Your task to perform on an android device: Open Chrome and go to settings Image 0: 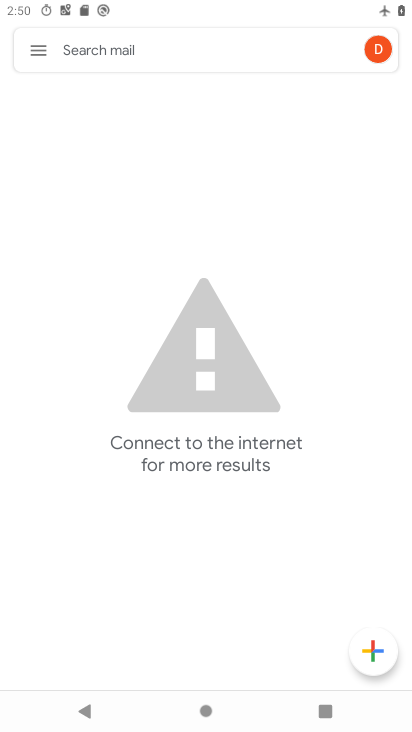
Step 0: press home button
Your task to perform on an android device: Open Chrome and go to settings Image 1: 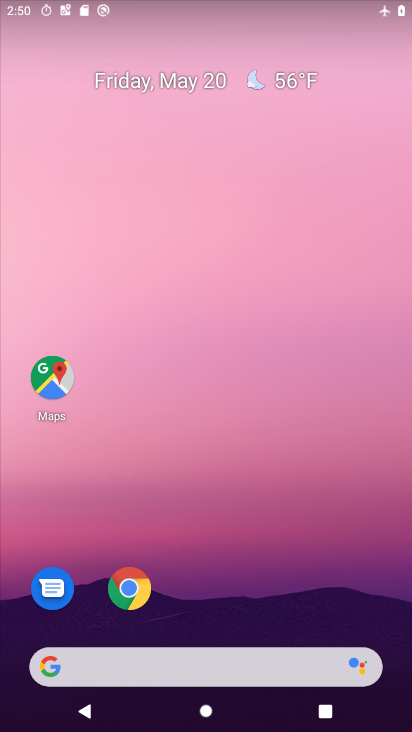
Step 1: click (122, 584)
Your task to perform on an android device: Open Chrome and go to settings Image 2: 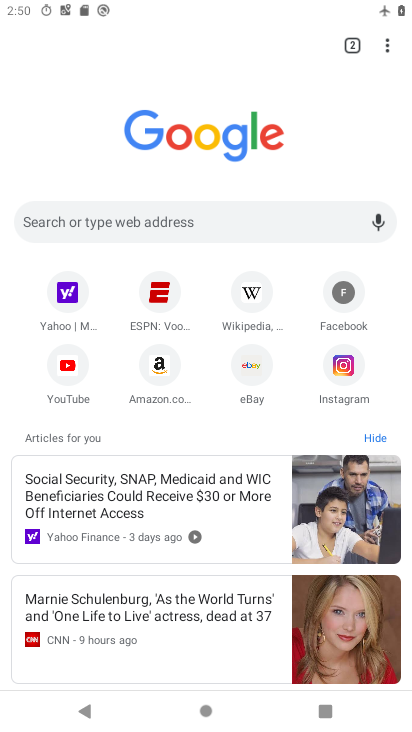
Step 2: click (386, 46)
Your task to perform on an android device: Open Chrome and go to settings Image 3: 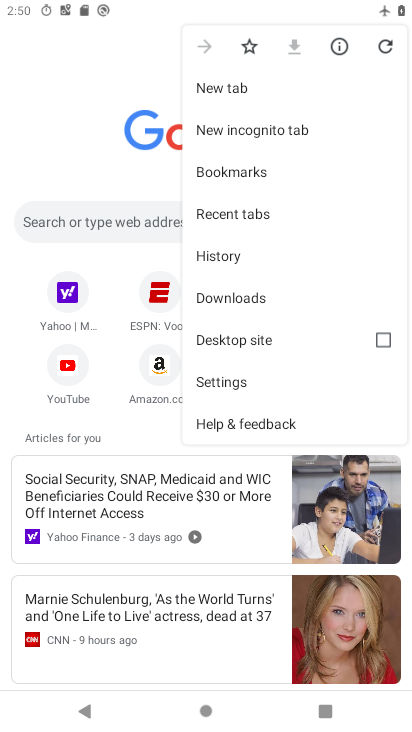
Step 3: click (251, 384)
Your task to perform on an android device: Open Chrome and go to settings Image 4: 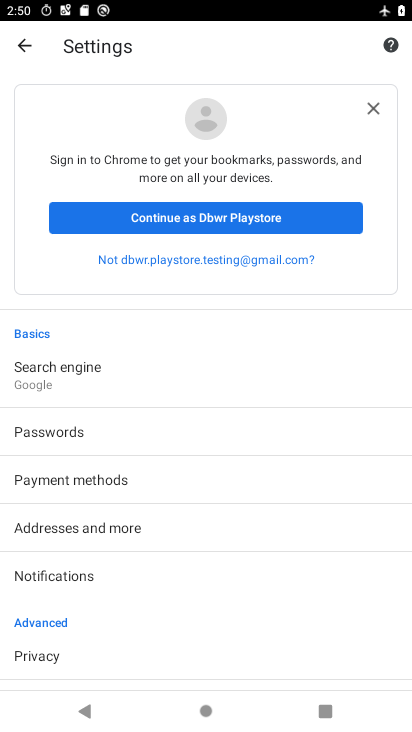
Step 4: click (372, 115)
Your task to perform on an android device: Open Chrome and go to settings Image 5: 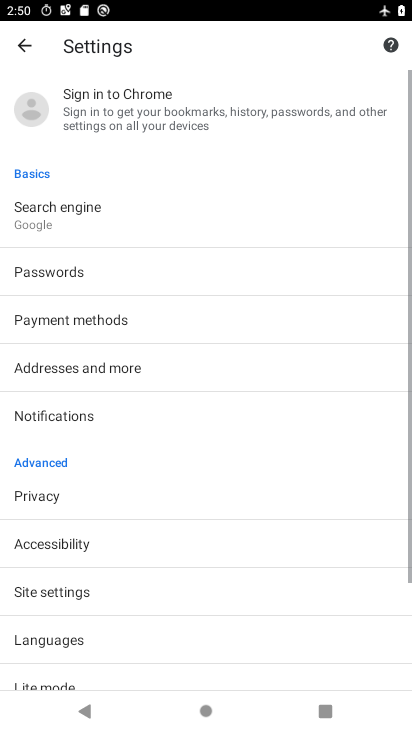
Step 5: drag from (362, 5) to (341, 350)
Your task to perform on an android device: Open Chrome and go to settings Image 6: 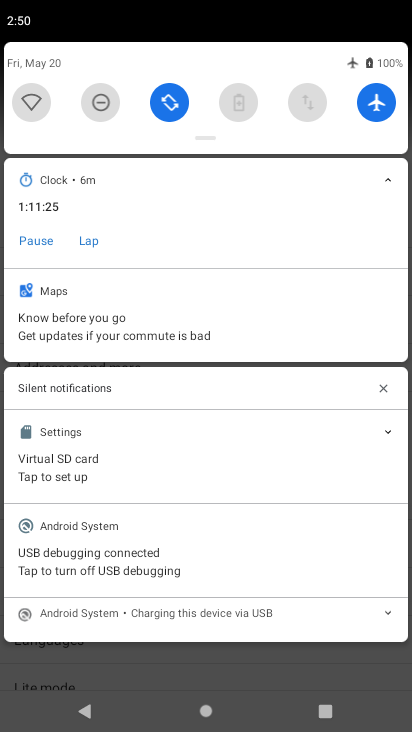
Step 6: click (368, 105)
Your task to perform on an android device: Open Chrome and go to settings Image 7: 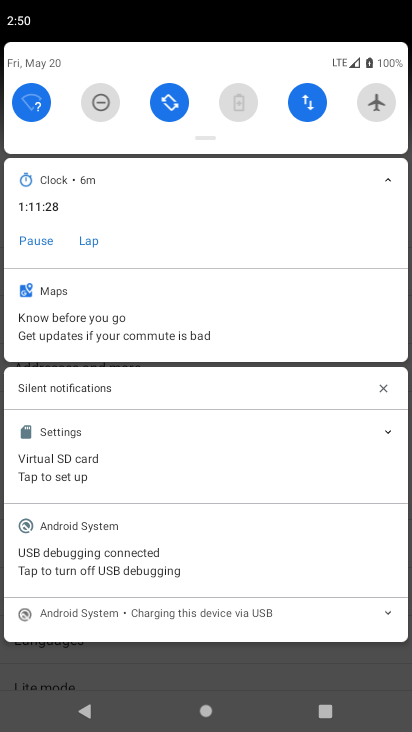
Step 7: task complete